Your task to perform on an android device: Go to accessibility settings Image 0: 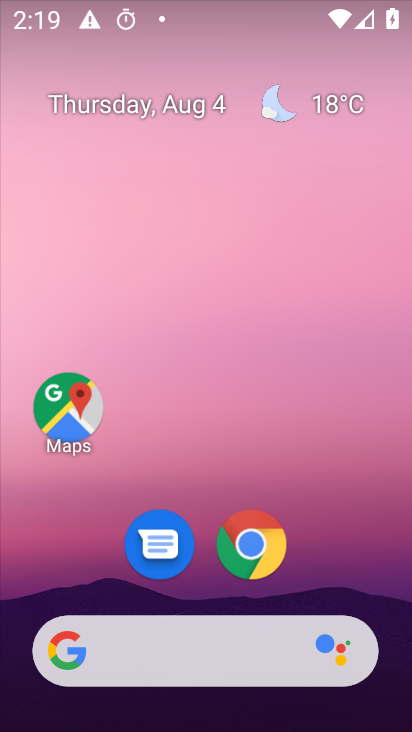
Step 0: drag from (383, 713) to (297, 106)
Your task to perform on an android device: Go to accessibility settings Image 1: 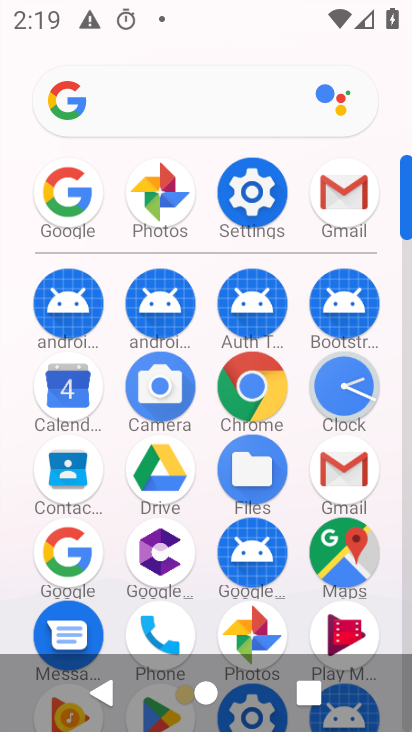
Step 1: click (246, 200)
Your task to perform on an android device: Go to accessibility settings Image 2: 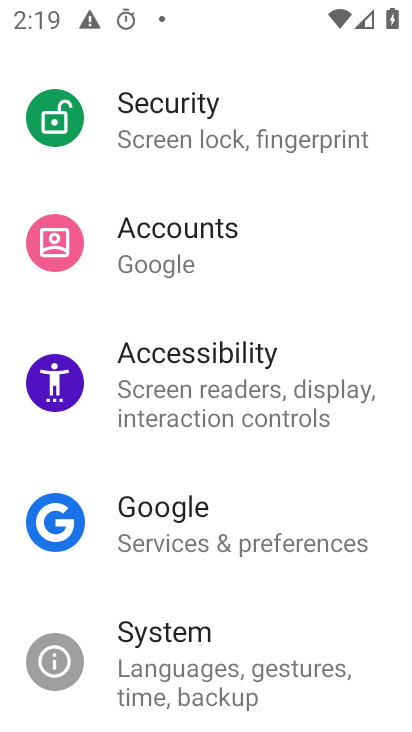
Step 2: click (181, 377)
Your task to perform on an android device: Go to accessibility settings Image 3: 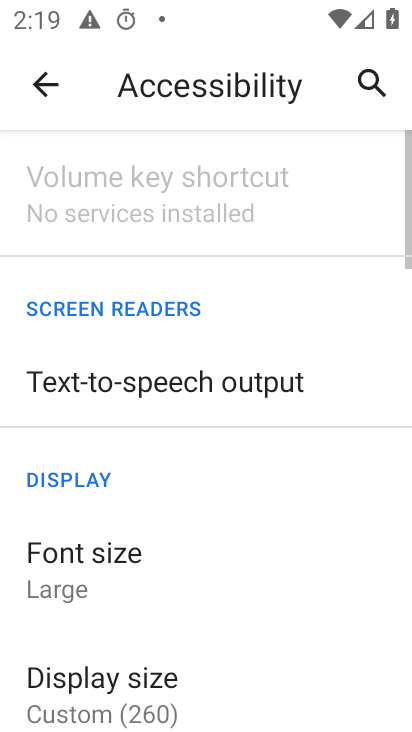
Step 3: task complete